Your task to perform on an android device: turn off smart reply in the gmail app Image 0: 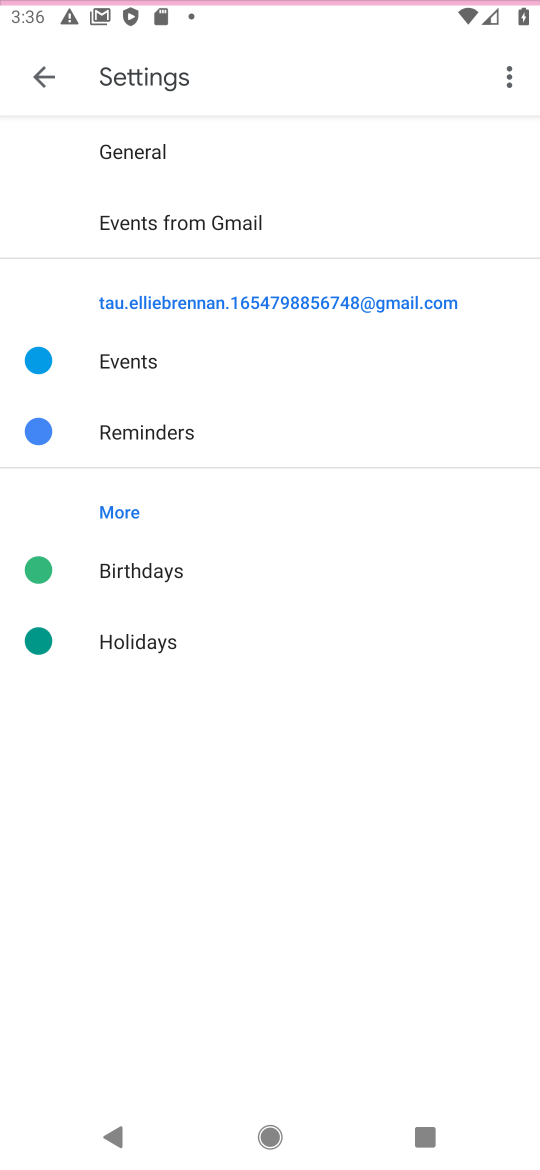
Step 0: click (382, 645)
Your task to perform on an android device: turn off smart reply in the gmail app Image 1: 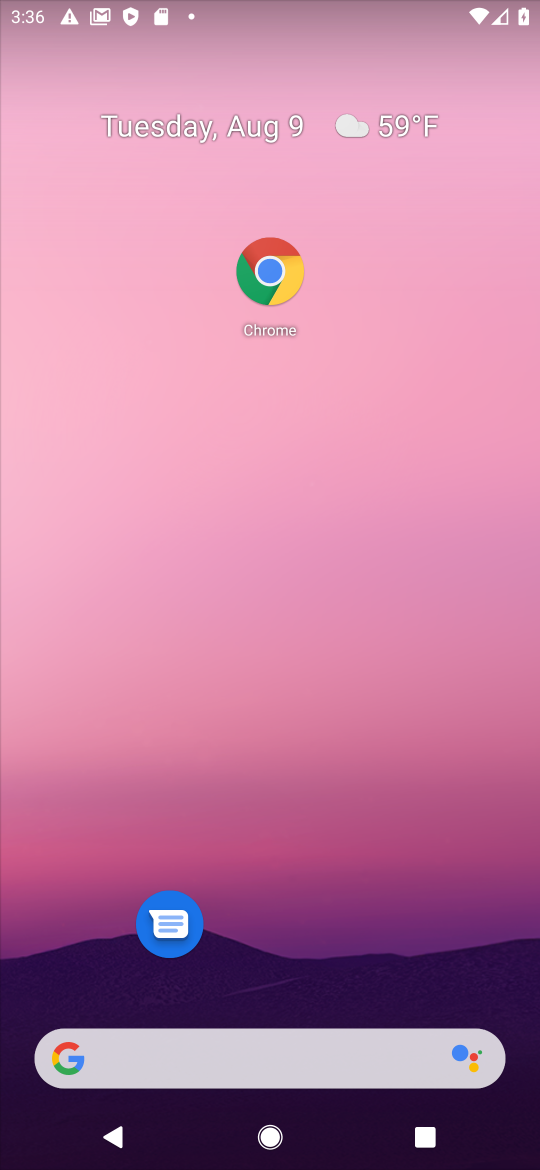
Step 1: drag from (352, 650) to (200, 658)
Your task to perform on an android device: turn off smart reply in the gmail app Image 2: 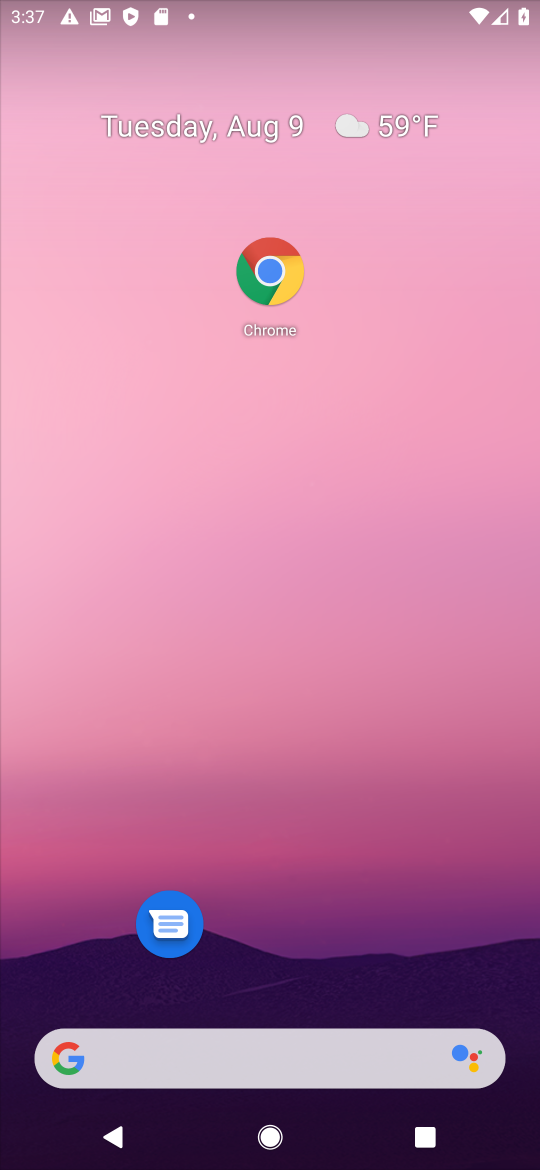
Step 2: drag from (257, 747) to (277, 166)
Your task to perform on an android device: turn off smart reply in the gmail app Image 3: 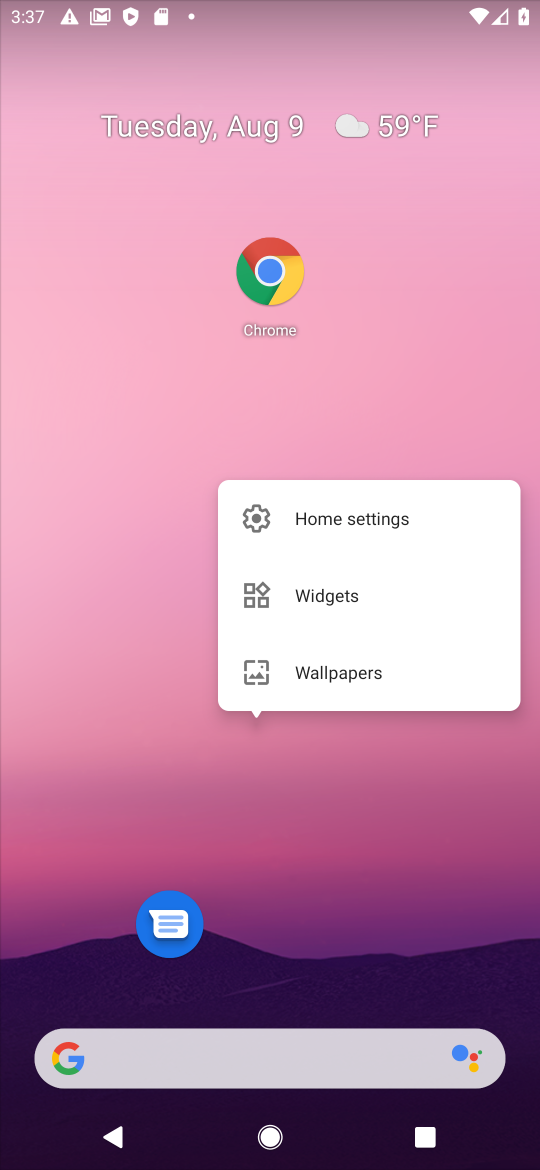
Step 3: click (320, 322)
Your task to perform on an android device: turn off smart reply in the gmail app Image 4: 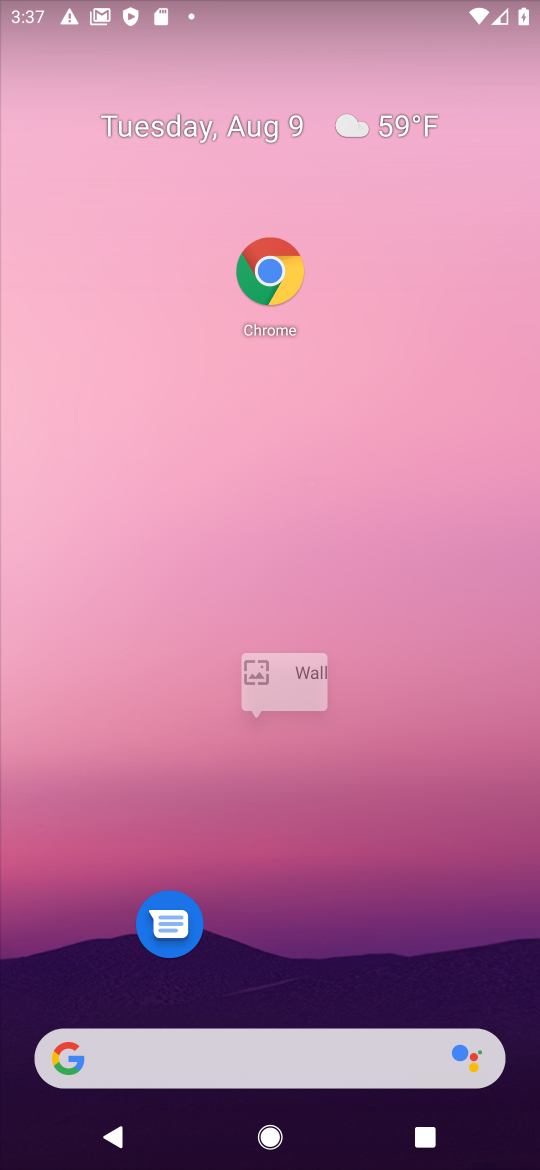
Step 4: drag from (232, 339) to (281, 247)
Your task to perform on an android device: turn off smart reply in the gmail app Image 5: 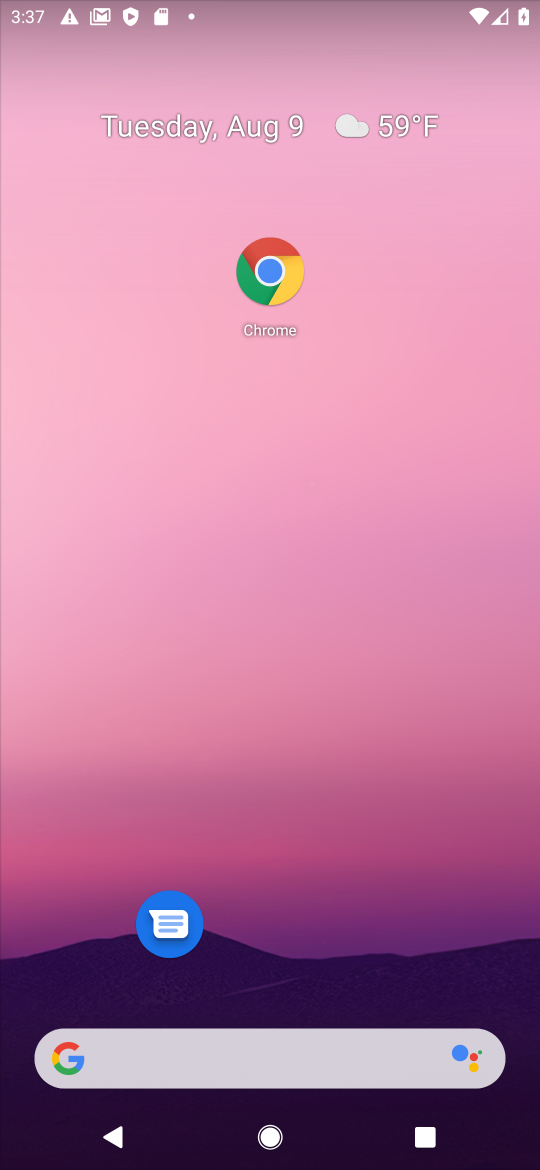
Step 5: drag from (267, 493) to (243, 99)
Your task to perform on an android device: turn off smart reply in the gmail app Image 6: 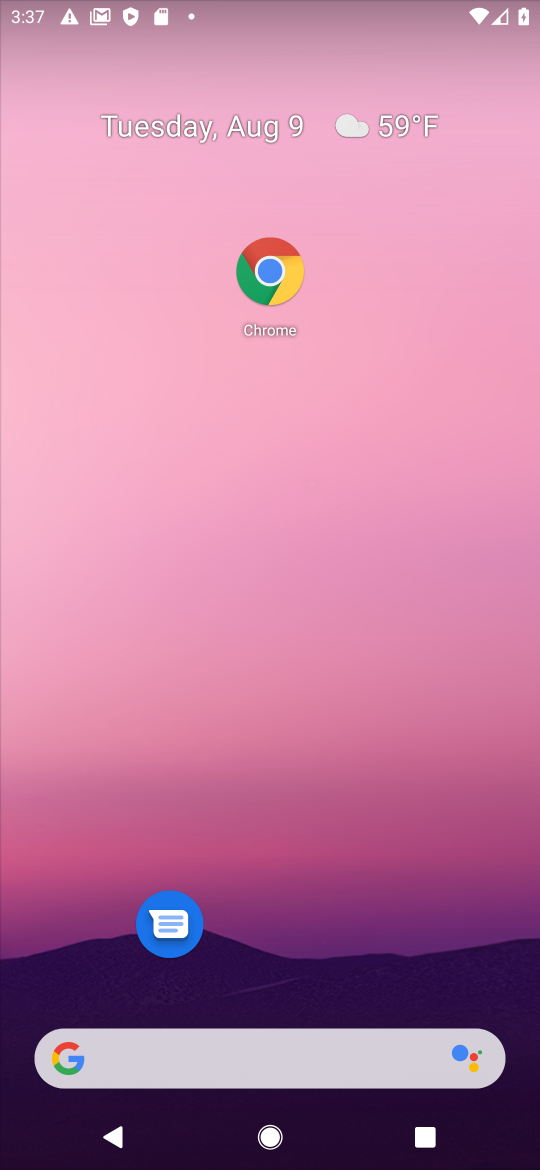
Step 6: drag from (239, 847) to (184, 122)
Your task to perform on an android device: turn off smart reply in the gmail app Image 7: 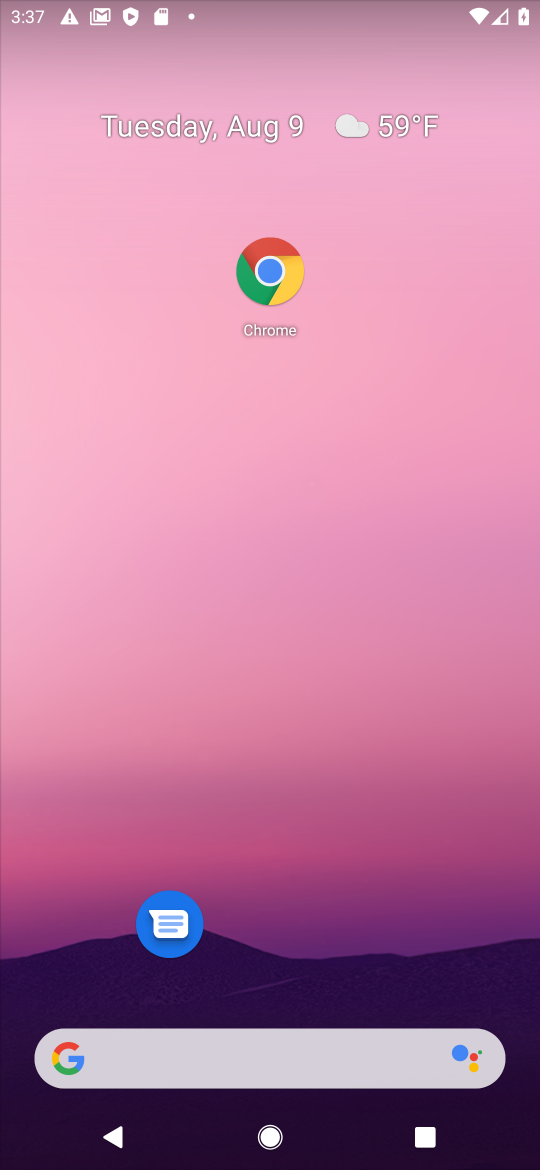
Step 7: drag from (294, 581) to (280, 95)
Your task to perform on an android device: turn off smart reply in the gmail app Image 8: 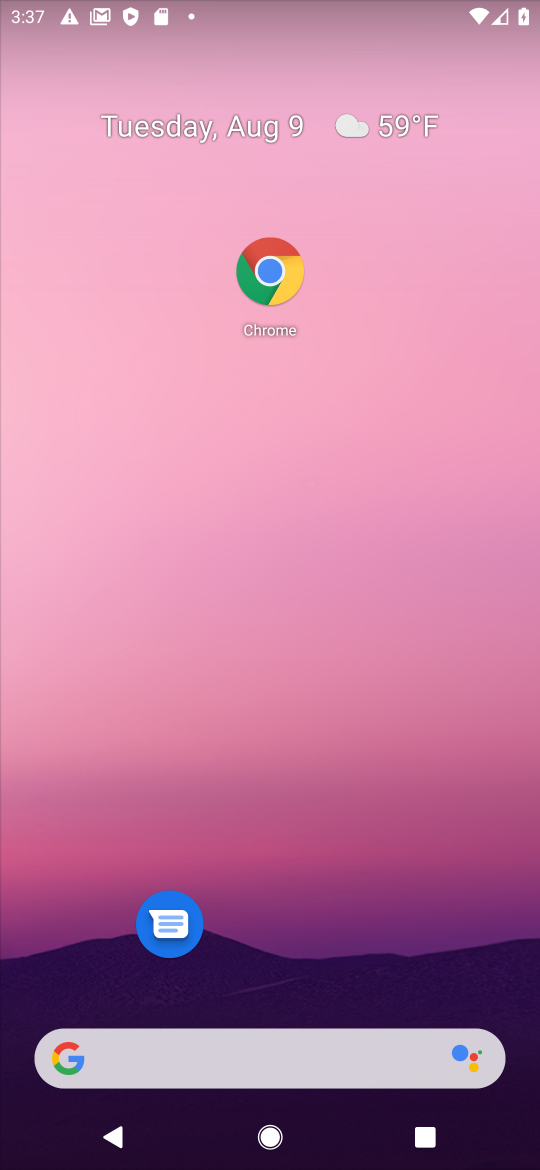
Step 8: drag from (318, 924) to (259, 114)
Your task to perform on an android device: turn off smart reply in the gmail app Image 9: 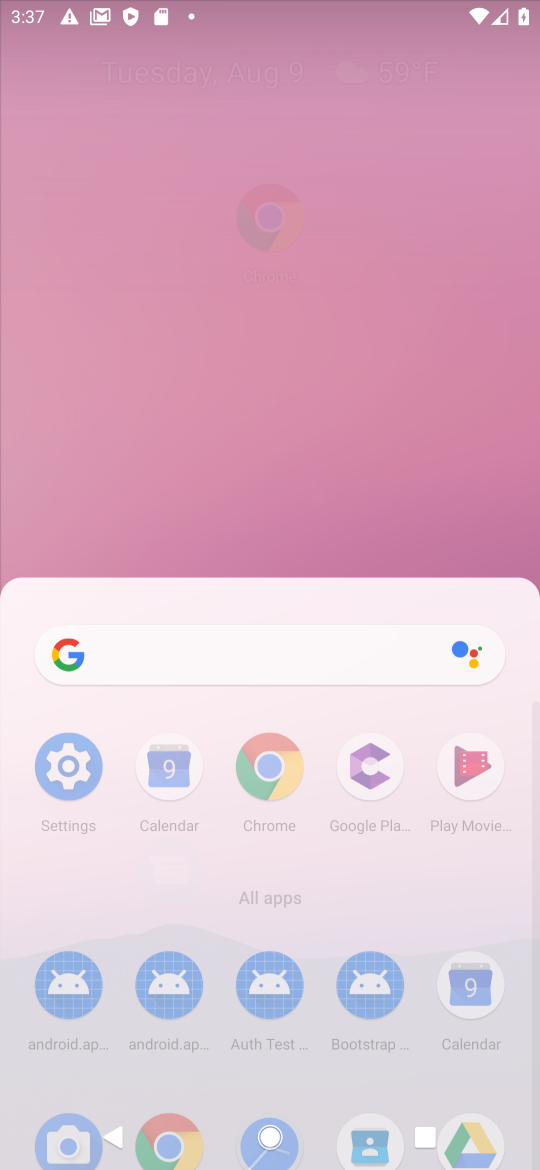
Step 9: drag from (278, 856) to (264, 255)
Your task to perform on an android device: turn off smart reply in the gmail app Image 10: 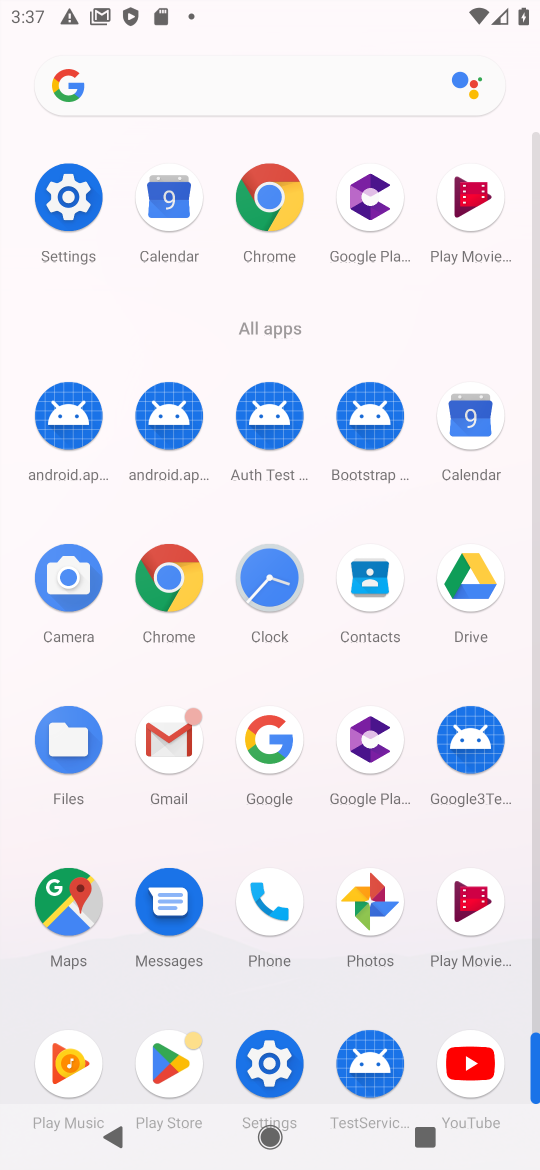
Step 10: click (269, 746)
Your task to perform on an android device: turn off smart reply in the gmail app Image 11: 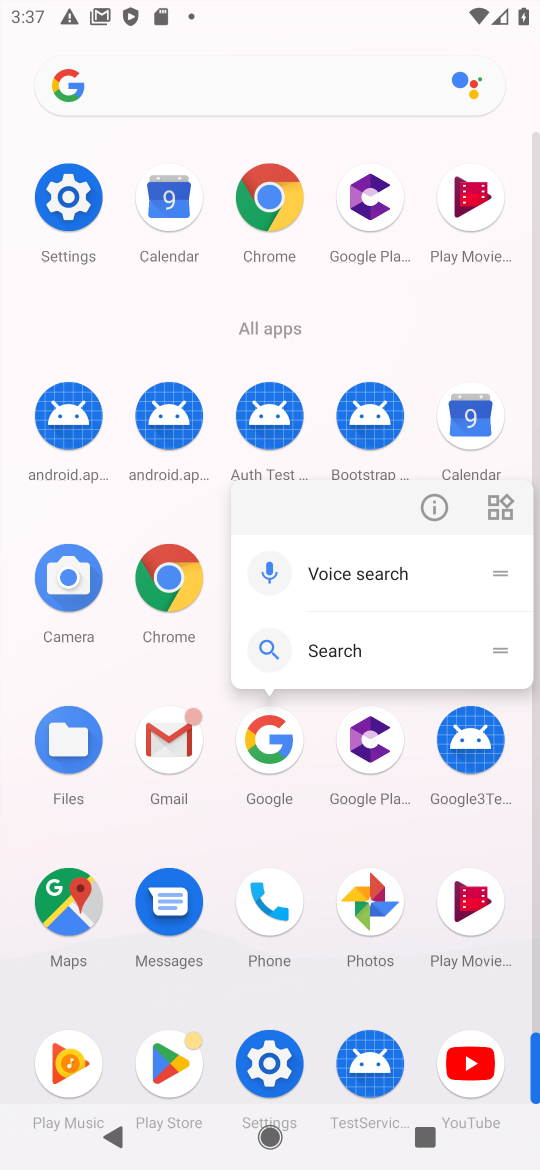
Step 11: click (306, 279)
Your task to perform on an android device: turn off smart reply in the gmail app Image 12: 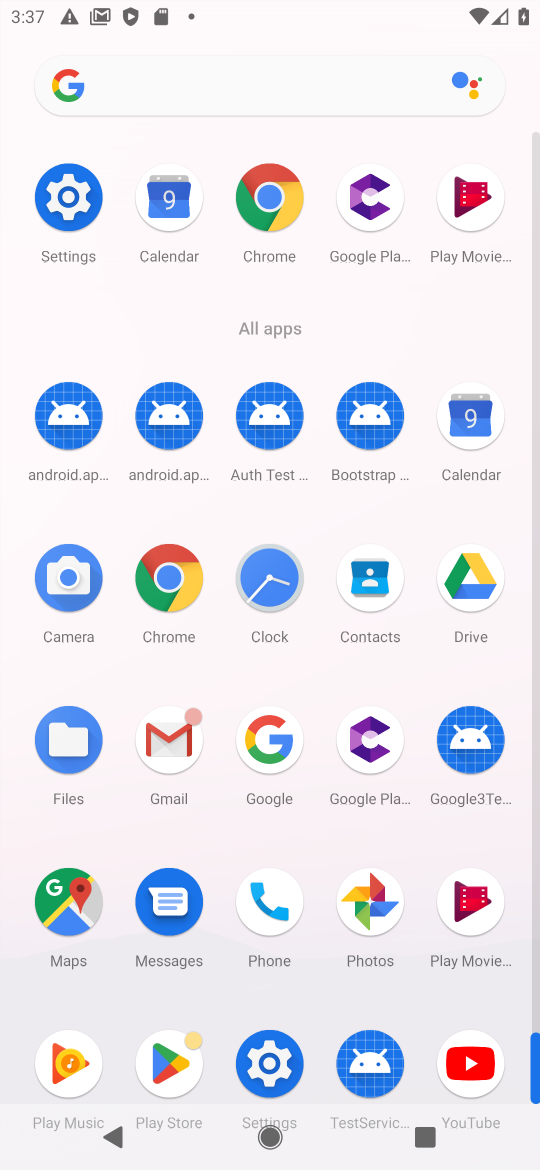
Step 12: click (321, 309)
Your task to perform on an android device: turn off smart reply in the gmail app Image 13: 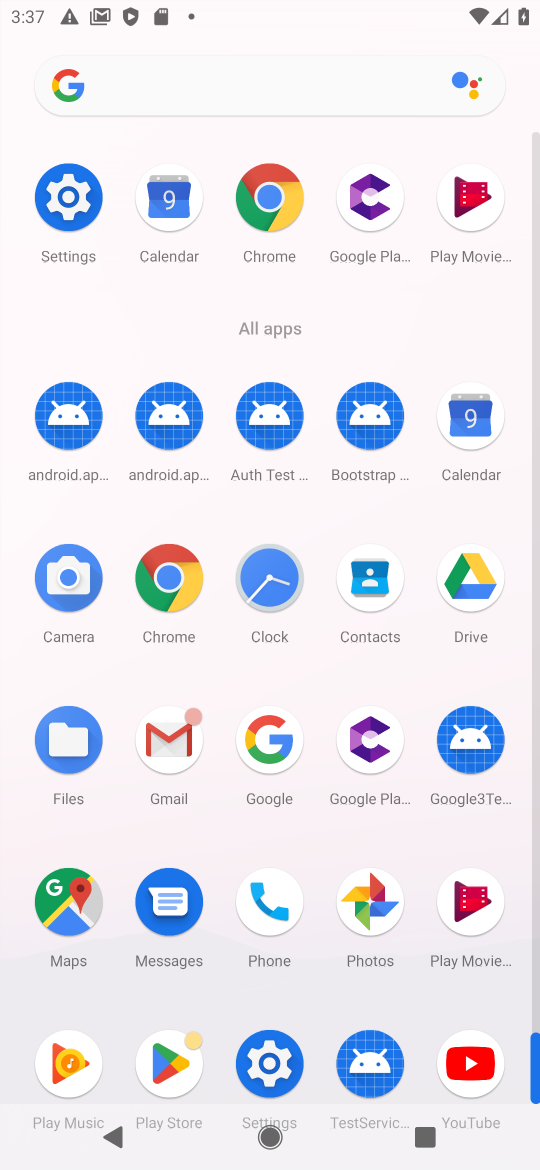
Step 13: click (344, 324)
Your task to perform on an android device: turn off smart reply in the gmail app Image 14: 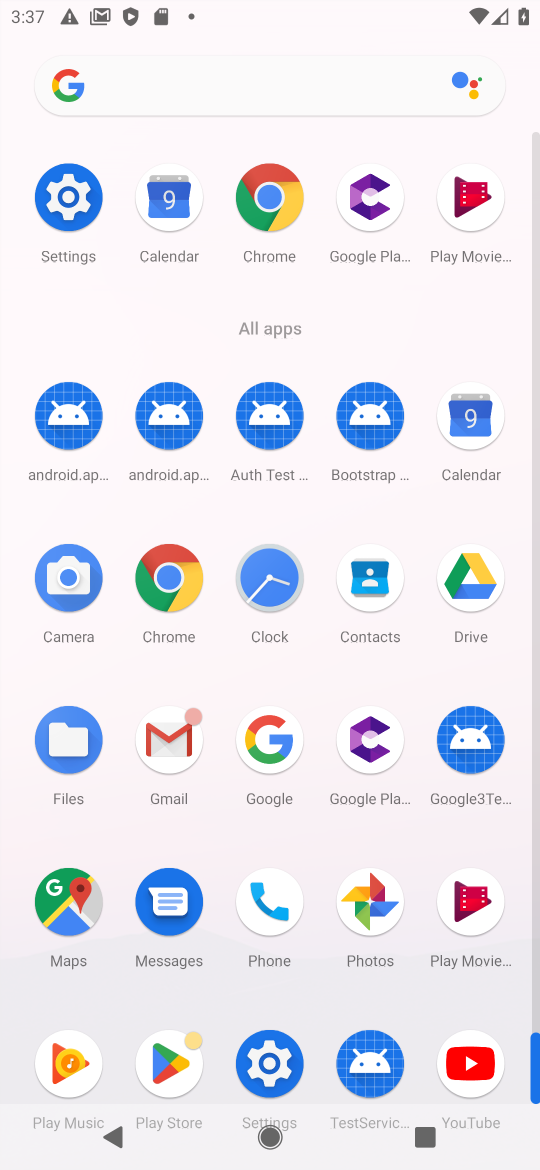
Step 14: click (164, 727)
Your task to perform on an android device: turn off smart reply in the gmail app Image 15: 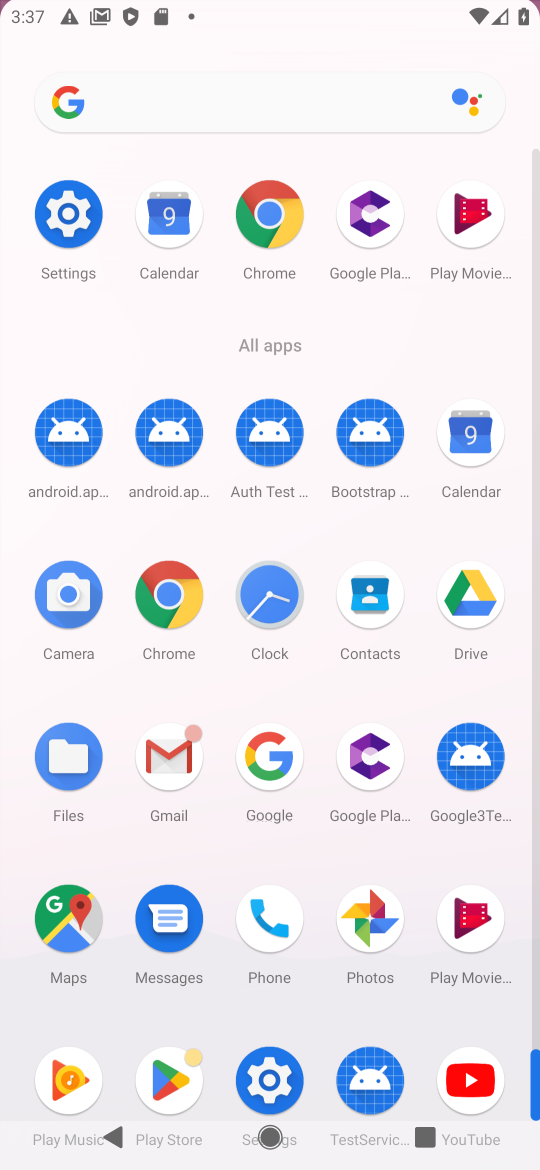
Step 15: click (178, 750)
Your task to perform on an android device: turn off smart reply in the gmail app Image 16: 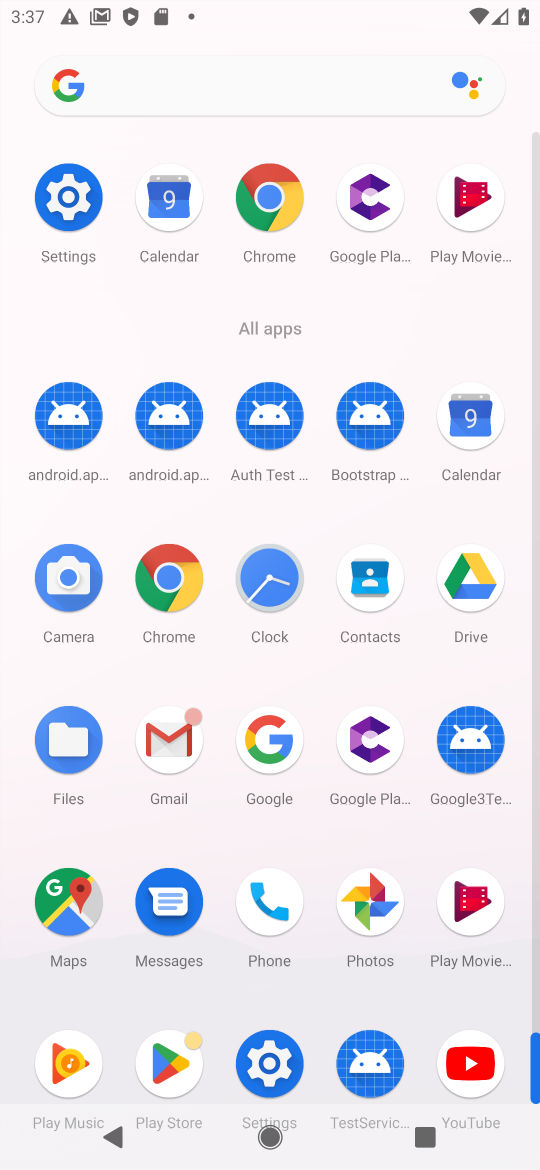
Step 16: click (178, 753)
Your task to perform on an android device: turn off smart reply in the gmail app Image 17: 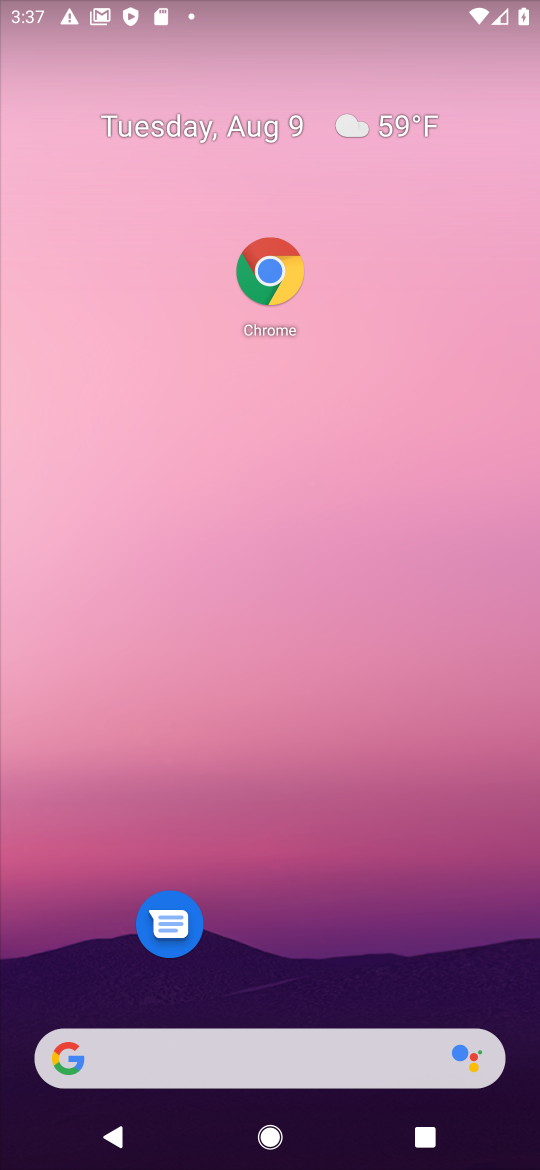
Step 17: drag from (205, 1014) to (275, 254)
Your task to perform on an android device: turn off smart reply in the gmail app Image 18: 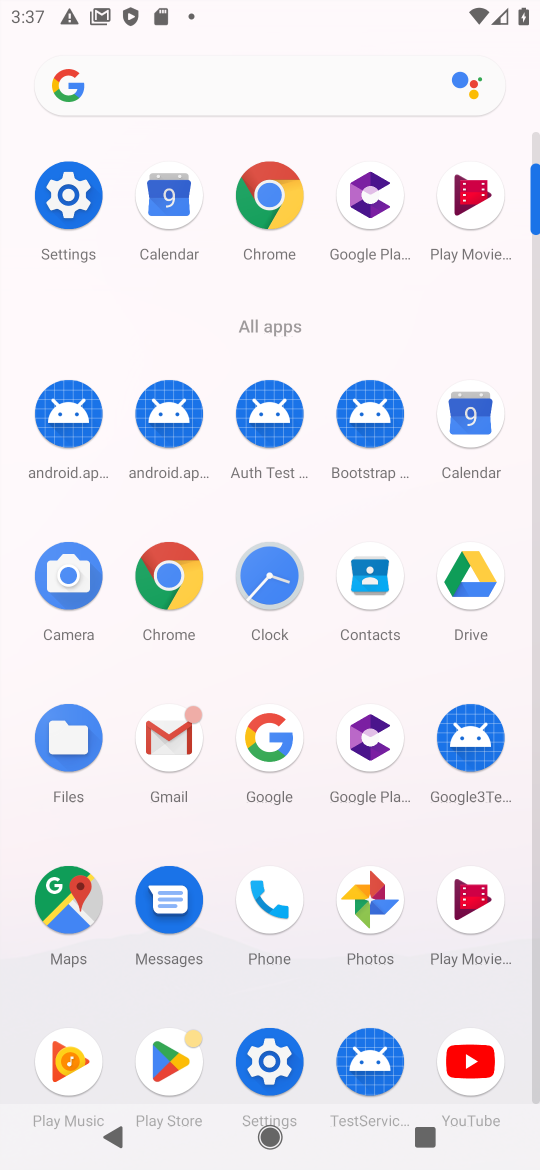
Step 18: click (170, 736)
Your task to perform on an android device: turn off smart reply in the gmail app Image 19: 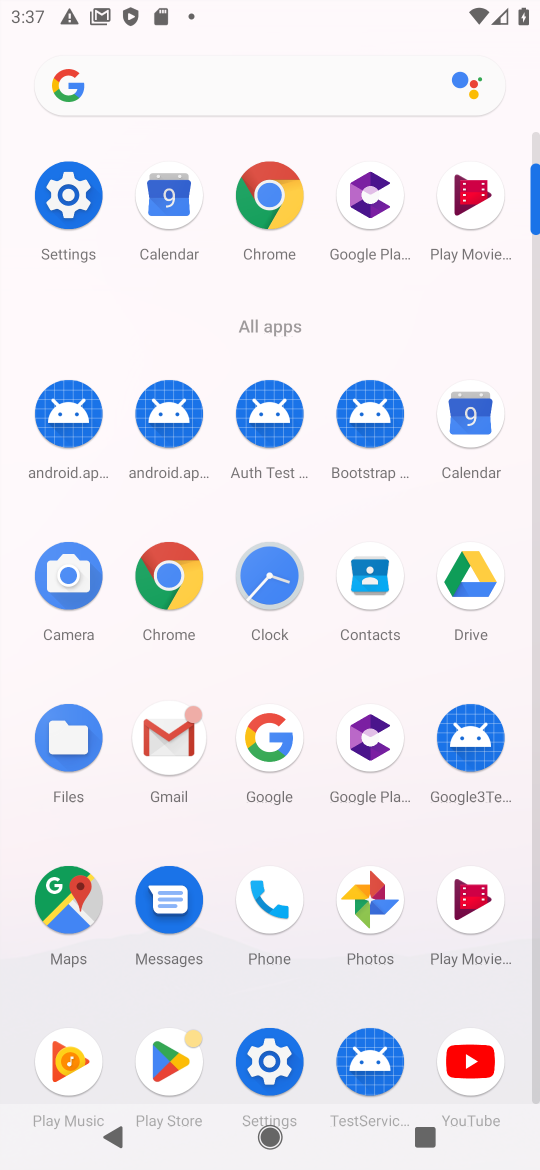
Step 19: click (170, 736)
Your task to perform on an android device: turn off smart reply in the gmail app Image 20: 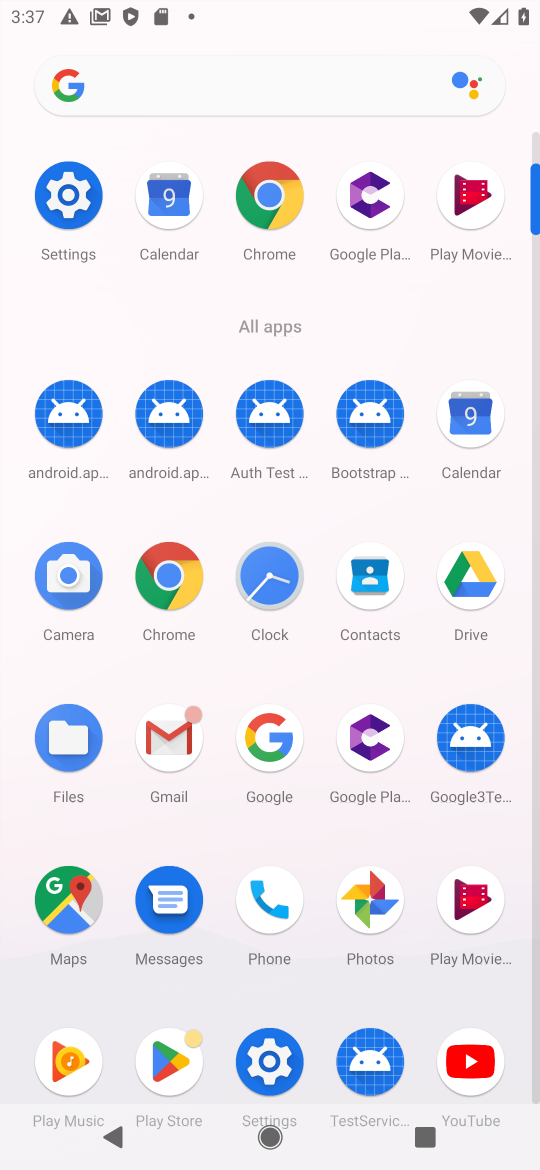
Step 20: click (175, 759)
Your task to perform on an android device: turn off smart reply in the gmail app Image 21: 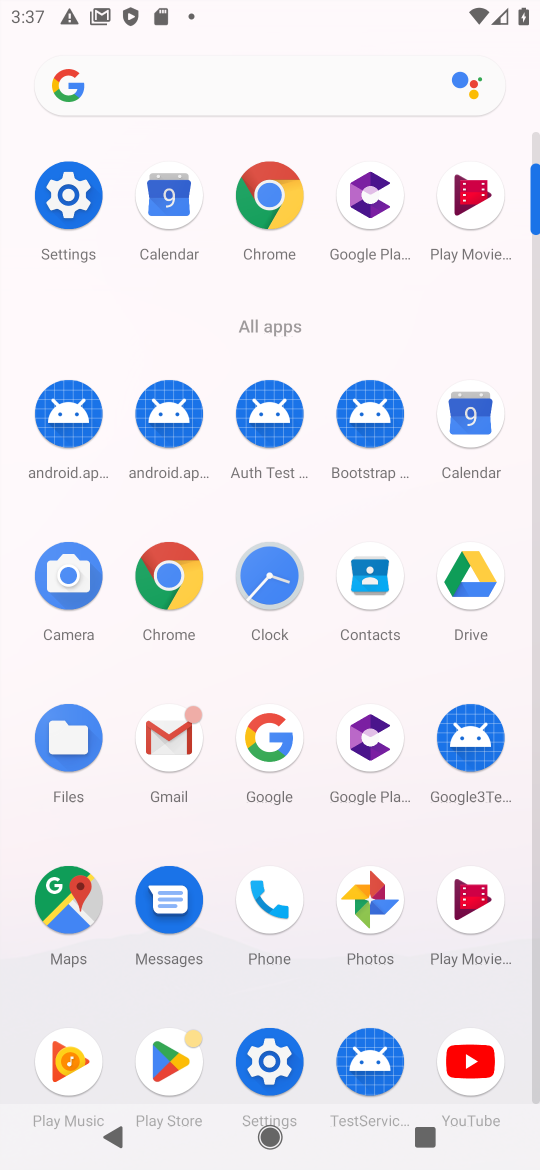
Step 21: click (174, 750)
Your task to perform on an android device: turn off smart reply in the gmail app Image 22: 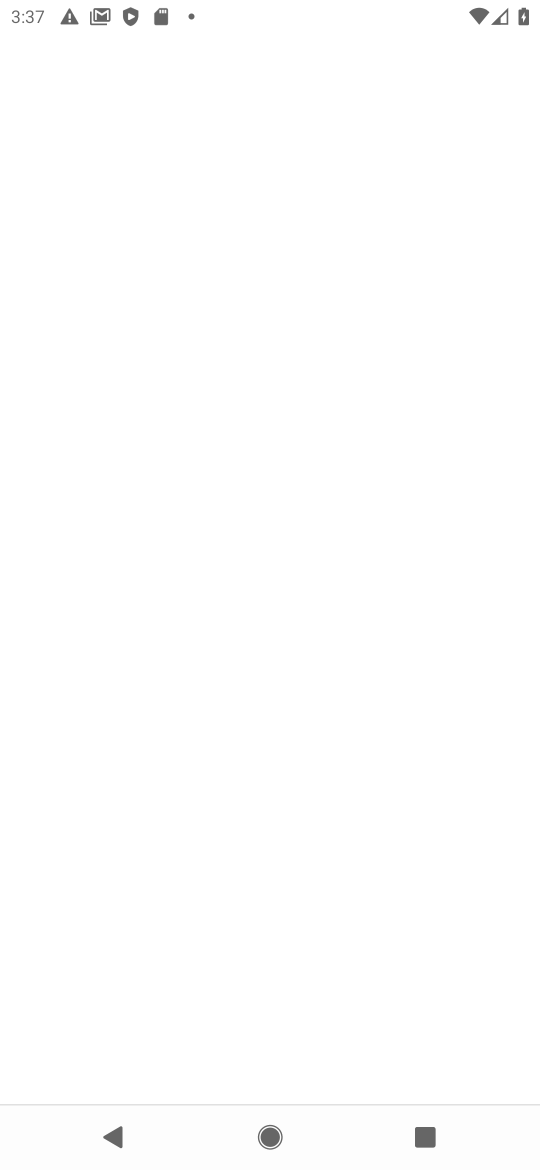
Step 22: click (171, 760)
Your task to perform on an android device: turn off smart reply in the gmail app Image 23: 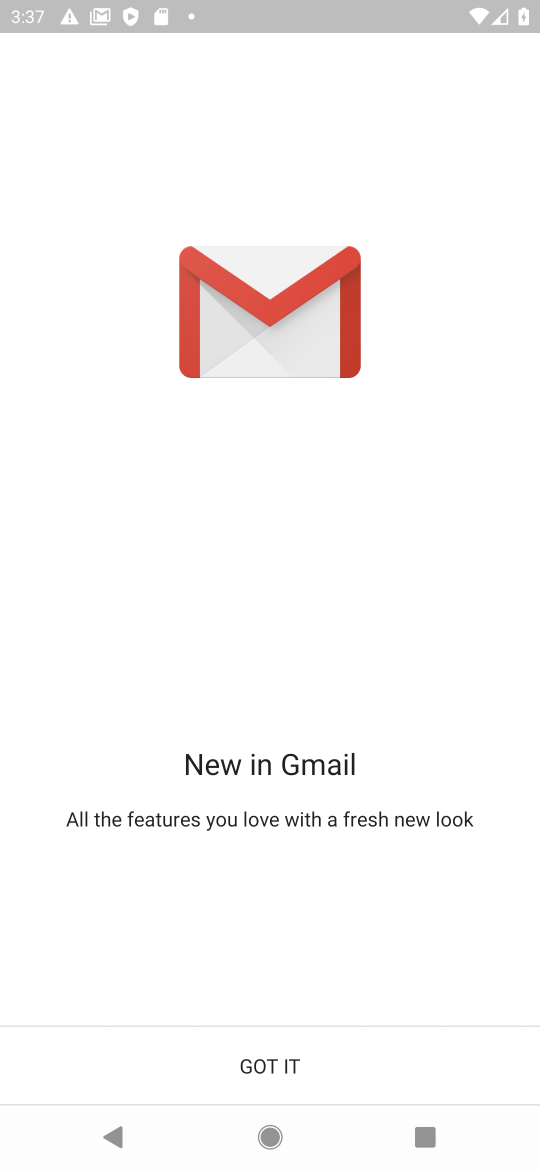
Step 23: click (277, 1063)
Your task to perform on an android device: turn off smart reply in the gmail app Image 24: 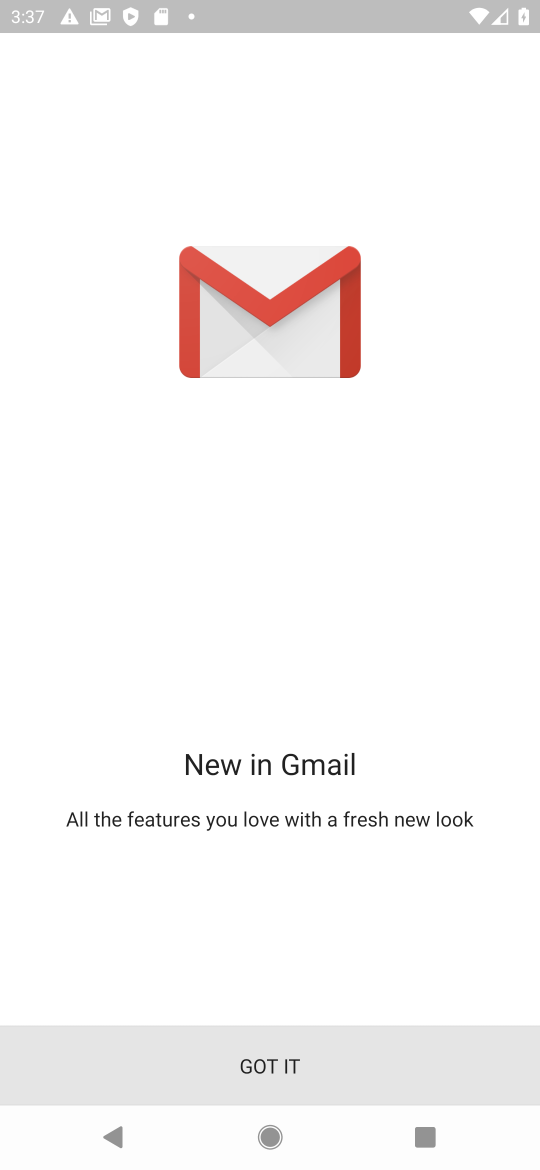
Step 24: click (277, 1063)
Your task to perform on an android device: turn off smart reply in the gmail app Image 25: 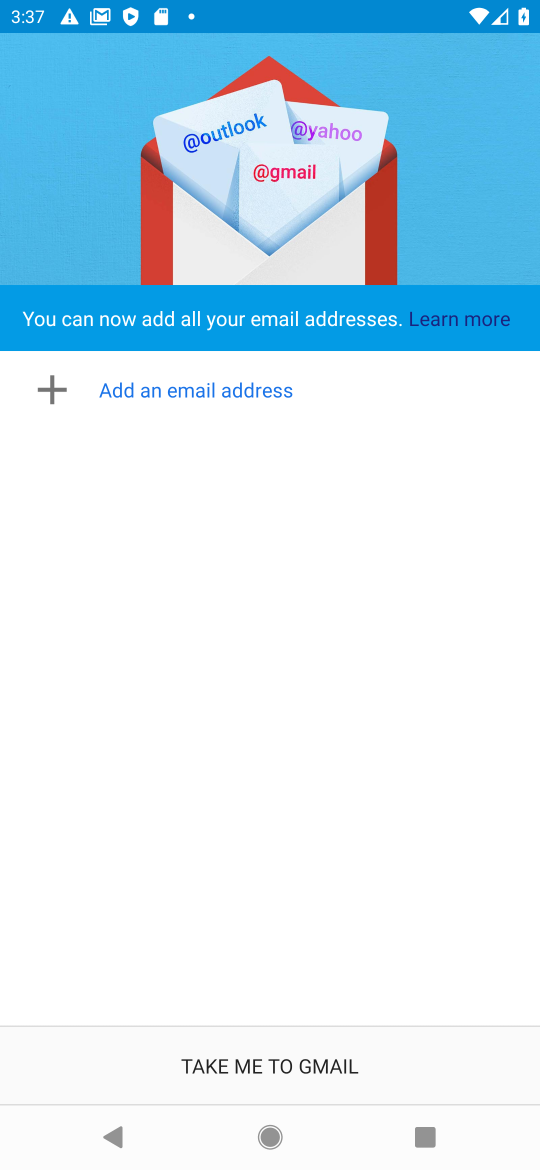
Step 25: click (280, 1063)
Your task to perform on an android device: turn off smart reply in the gmail app Image 26: 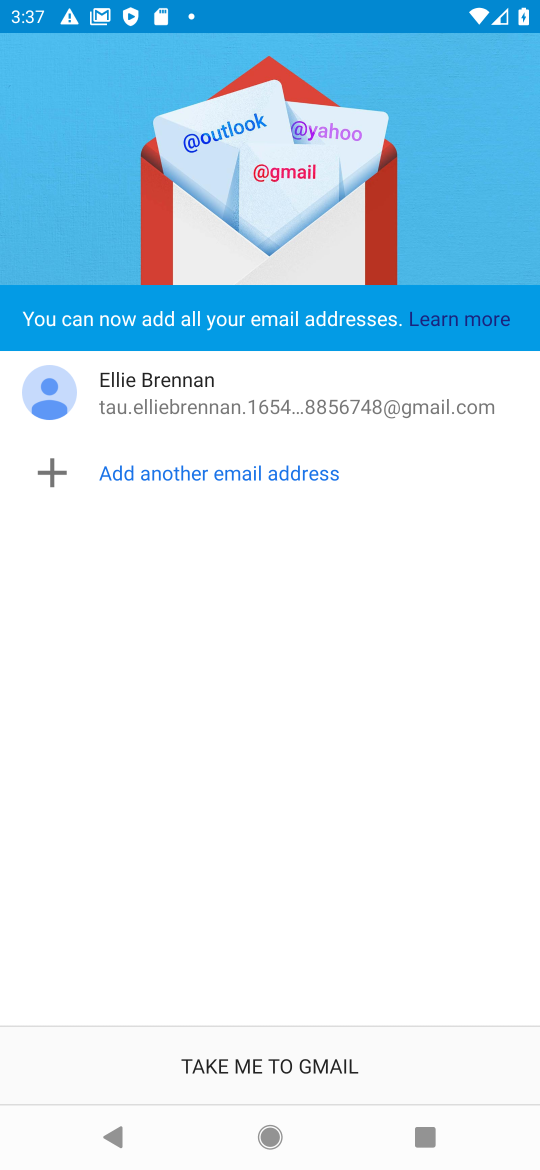
Step 26: click (325, 1080)
Your task to perform on an android device: turn off smart reply in the gmail app Image 27: 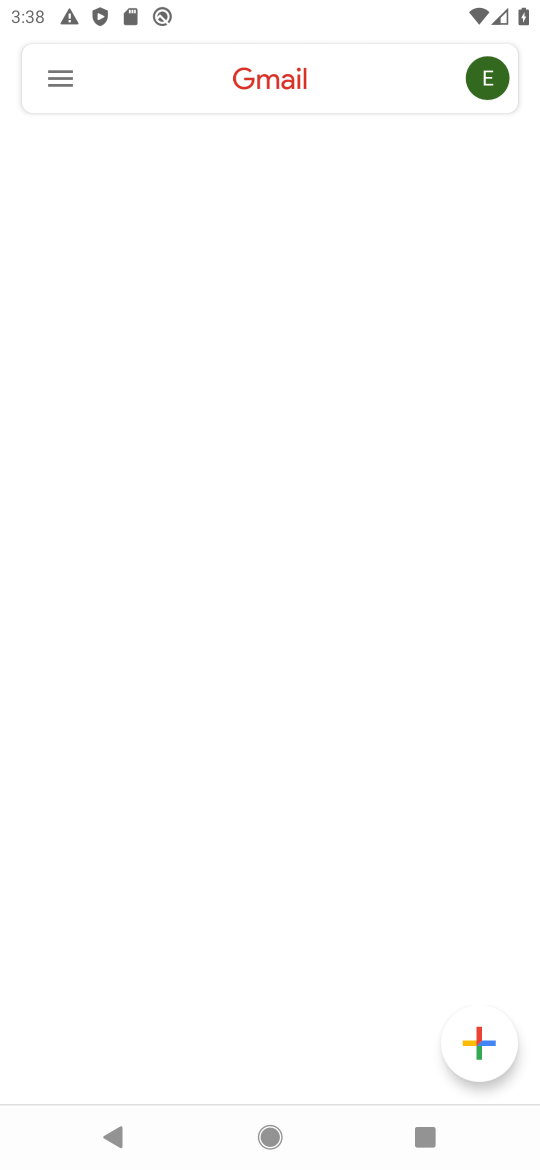
Step 27: click (323, 1079)
Your task to perform on an android device: turn off smart reply in the gmail app Image 28: 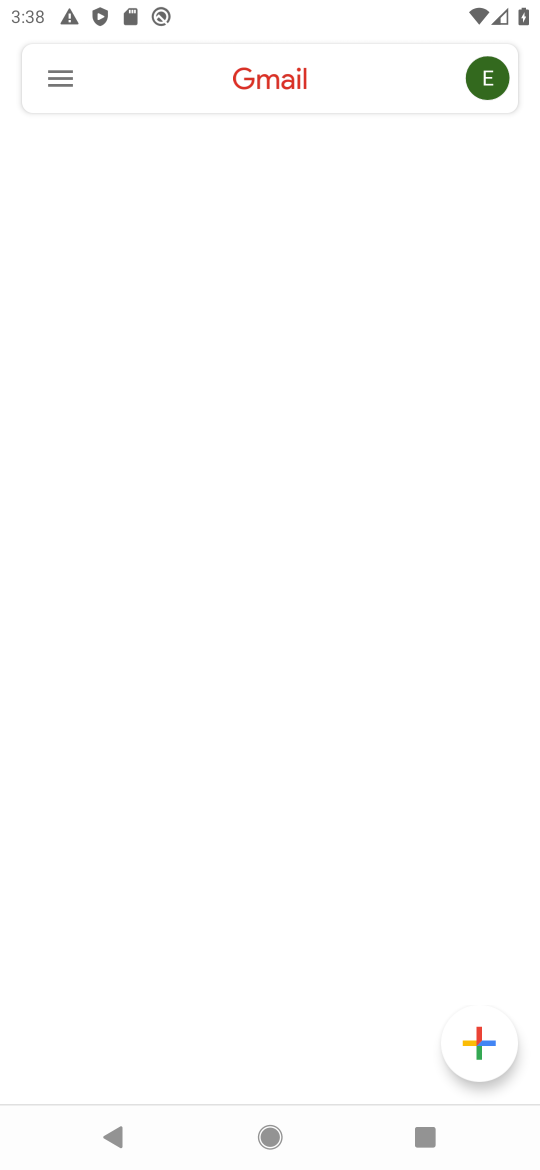
Step 28: click (323, 1079)
Your task to perform on an android device: turn off smart reply in the gmail app Image 29: 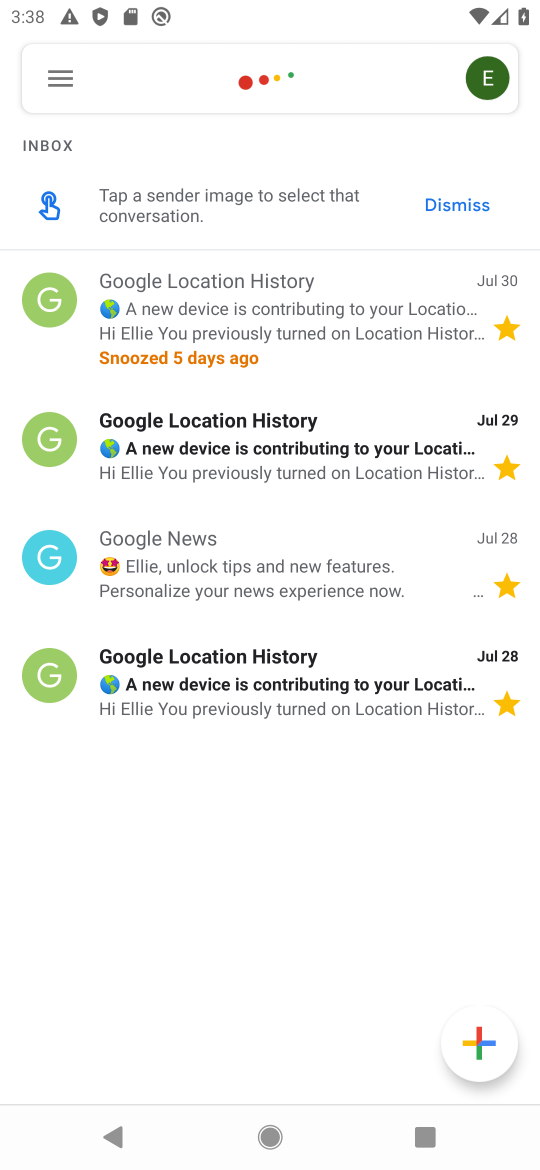
Step 29: drag from (54, 72) to (175, 743)
Your task to perform on an android device: turn off smart reply in the gmail app Image 30: 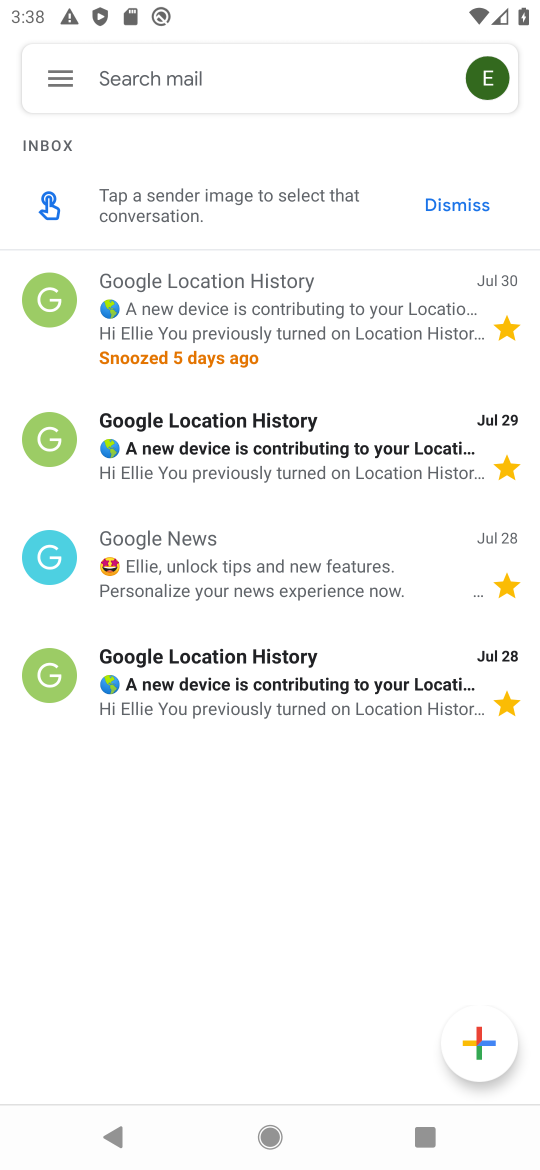
Step 30: click (49, 82)
Your task to perform on an android device: turn off smart reply in the gmail app Image 31: 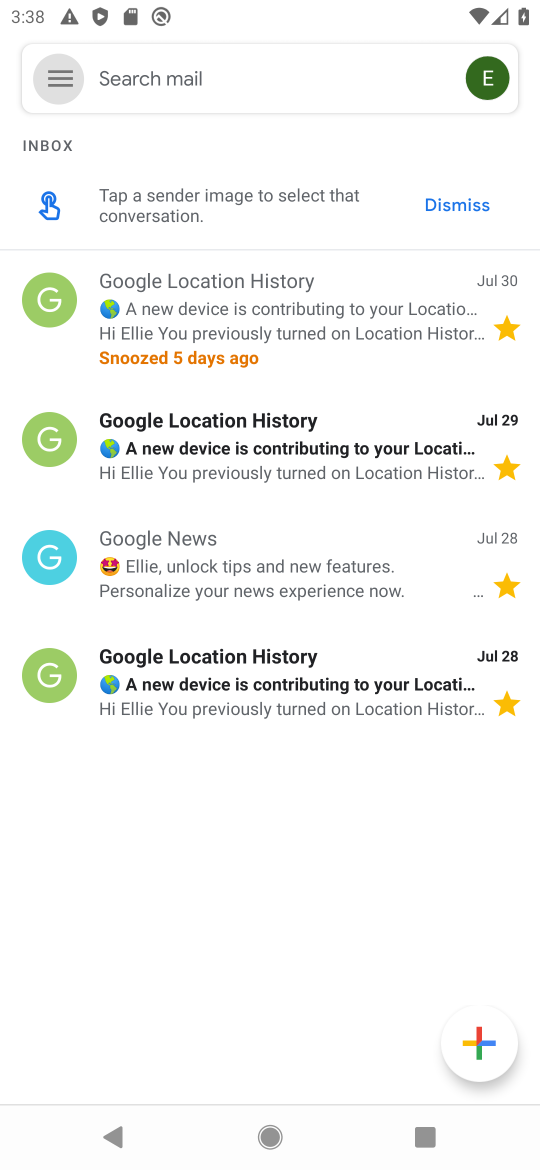
Step 31: click (51, 86)
Your task to perform on an android device: turn off smart reply in the gmail app Image 32: 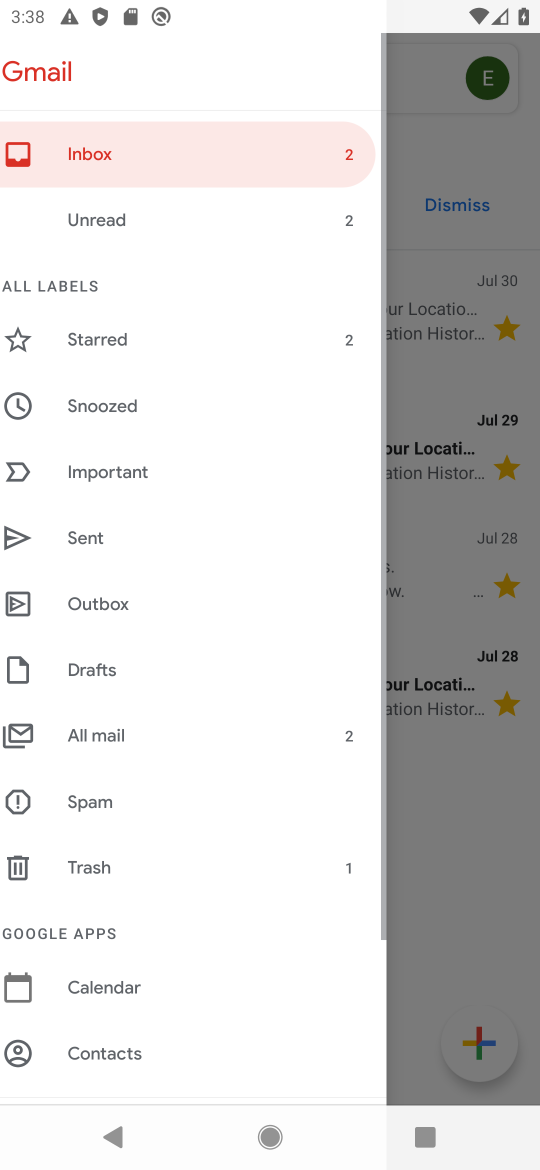
Step 32: click (51, 86)
Your task to perform on an android device: turn off smart reply in the gmail app Image 33: 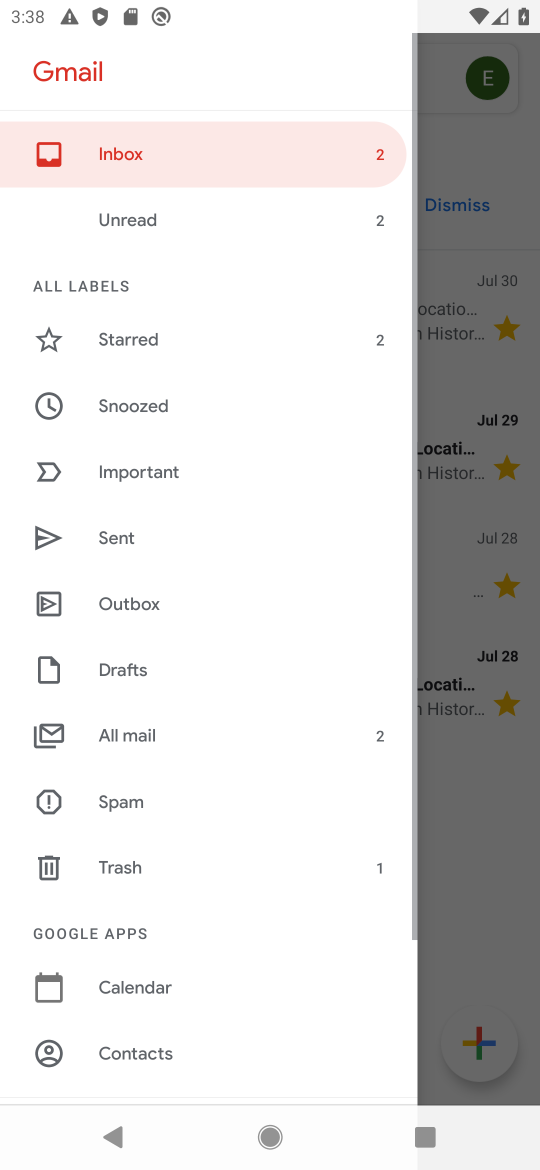
Step 33: click (51, 86)
Your task to perform on an android device: turn off smart reply in the gmail app Image 34: 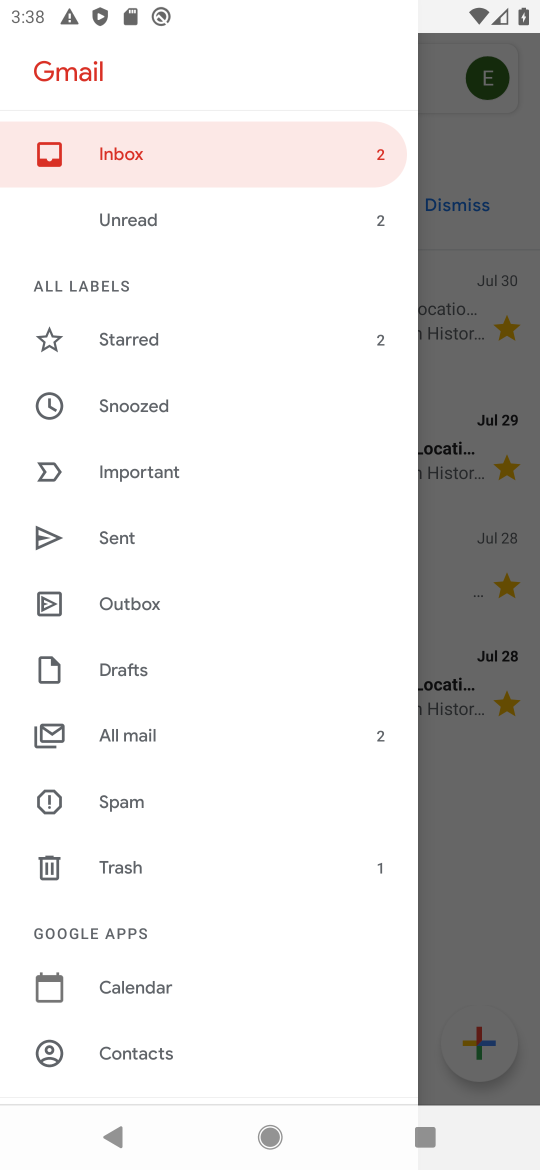
Step 34: drag from (125, 861) to (136, 454)
Your task to perform on an android device: turn off smart reply in the gmail app Image 35: 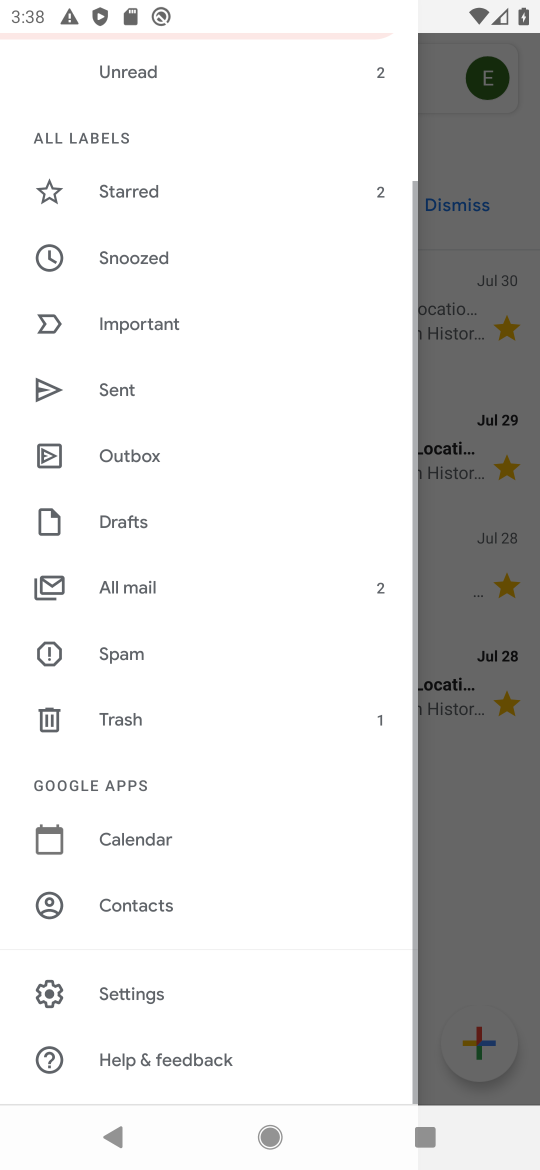
Step 35: click (140, 488)
Your task to perform on an android device: turn off smart reply in the gmail app Image 36: 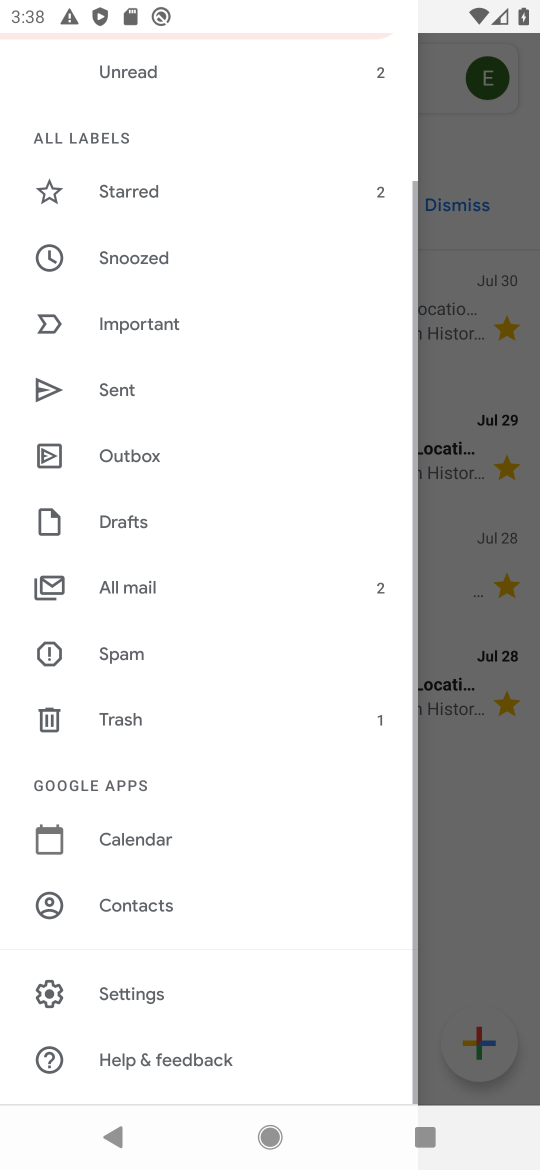
Step 36: drag from (196, 965) to (198, 402)
Your task to perform on an android device: turn off smart reply in the gmail app Image 37: 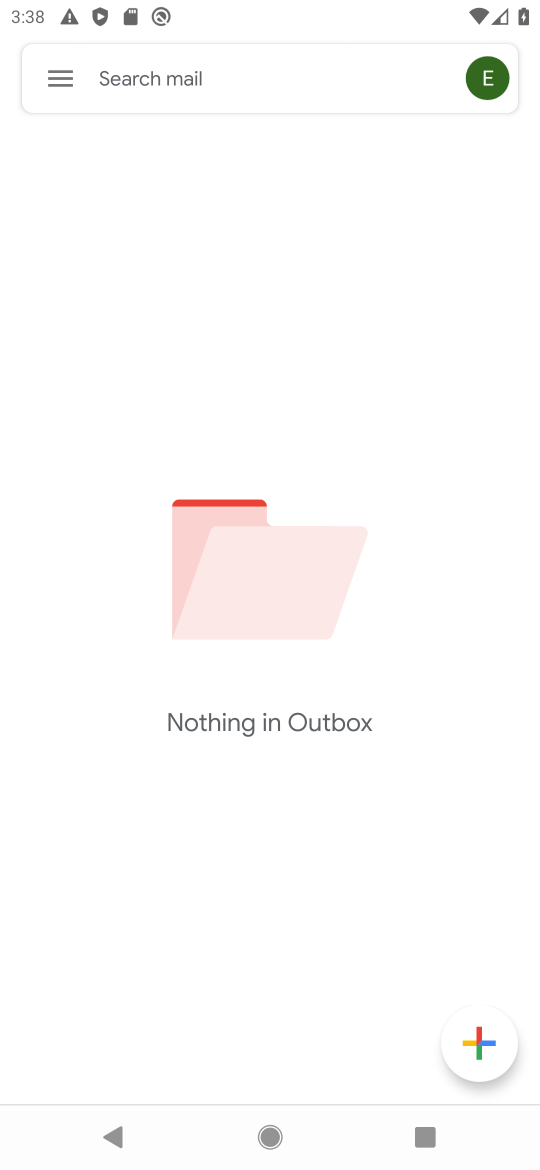
Step 37: click (68, 62)
Your task to perform on an android device: turn off smart reply in the gmail app Image 38: 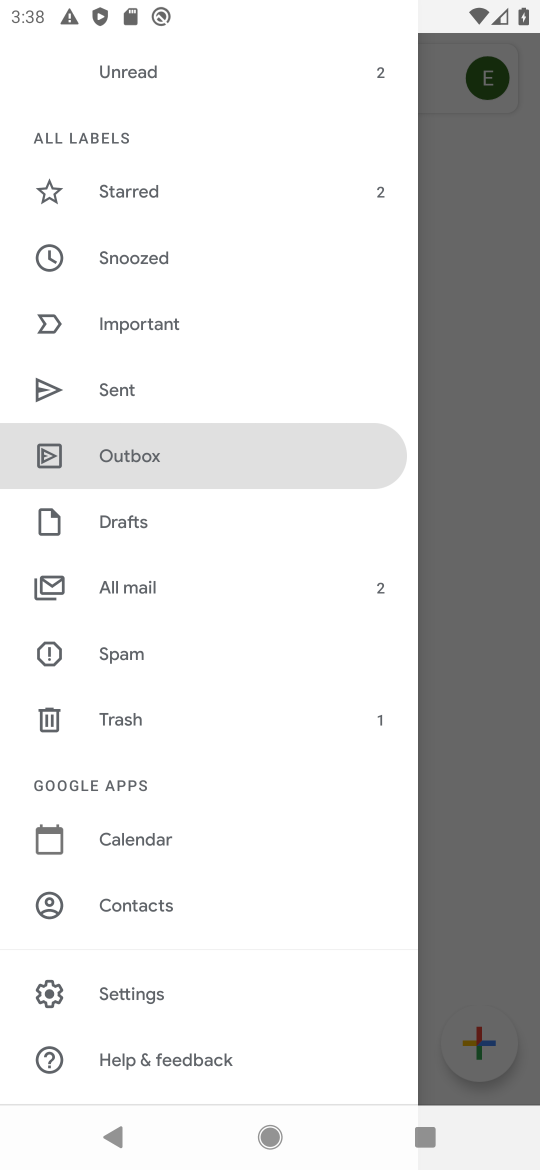
Step 38: click (121, 1007)
Your task to perform on an android device: turn off smart reply in the gmail app Image 39: 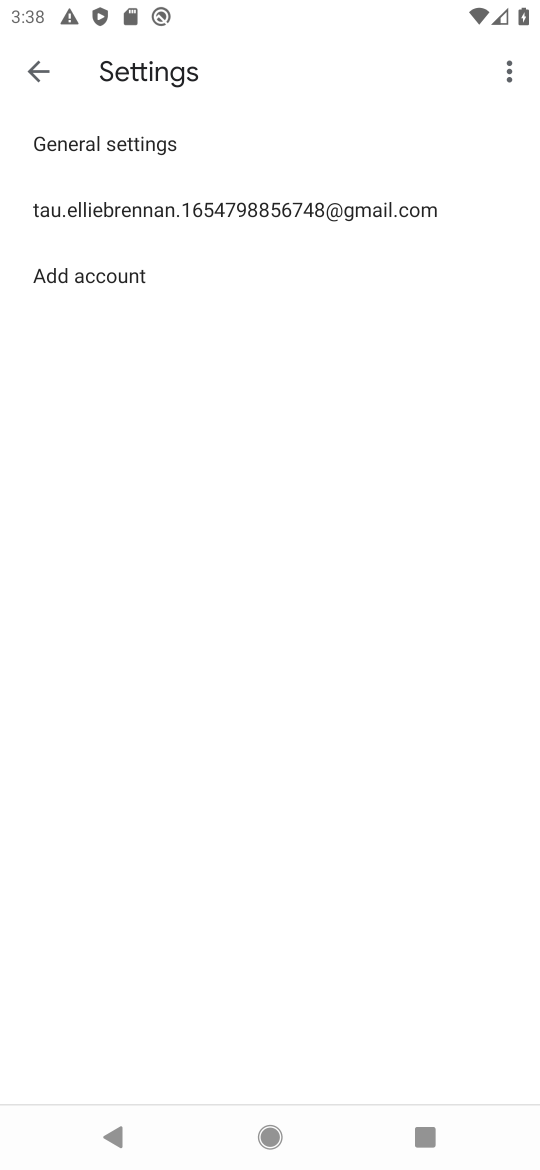
Step 39: click (151, 193)
Your task to perform on an android device: turn off smart reply in the gmail app Image 40: 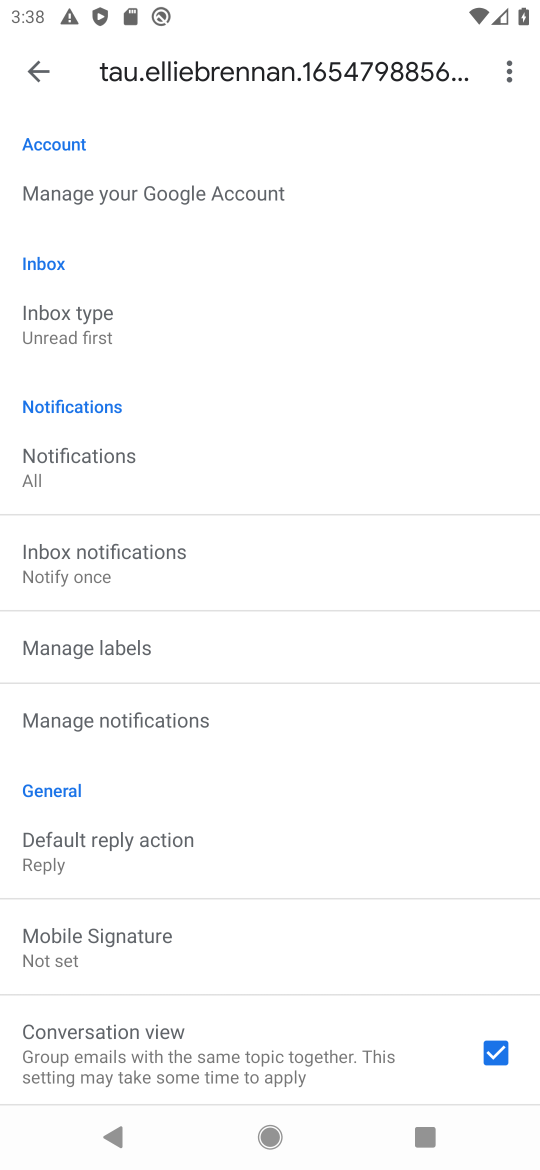
Step 40: drag from (178, 810) to (215, 676)
Your task to perform on an android device: turn off smart reply in the gmail app Image 41: 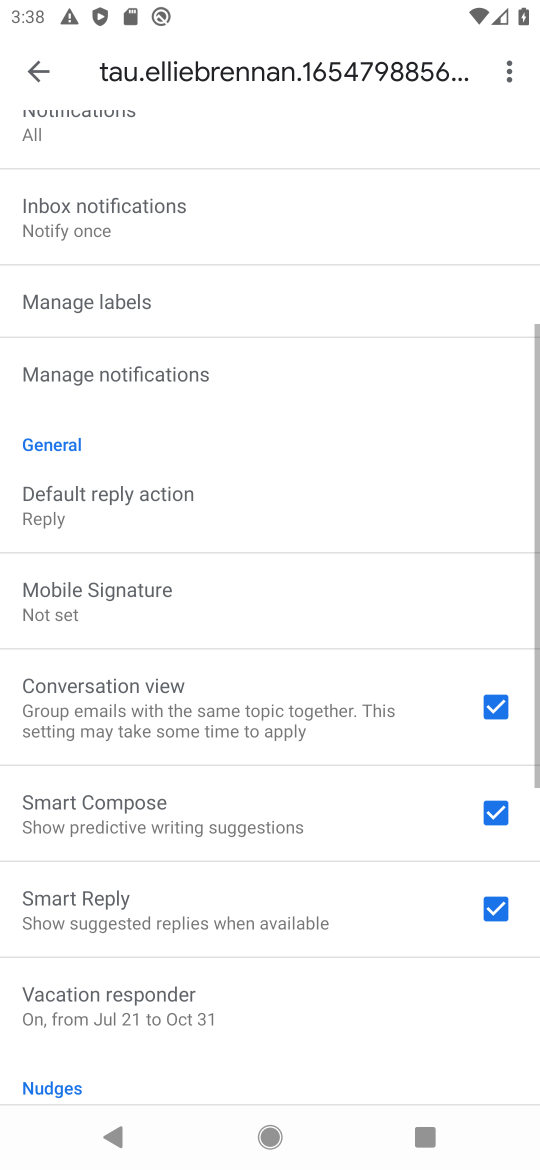
Step 41: drag from (261, 872) to (295, 559)
Your task to perform on an android device: turn off smart reply in the gmail app Image 42: 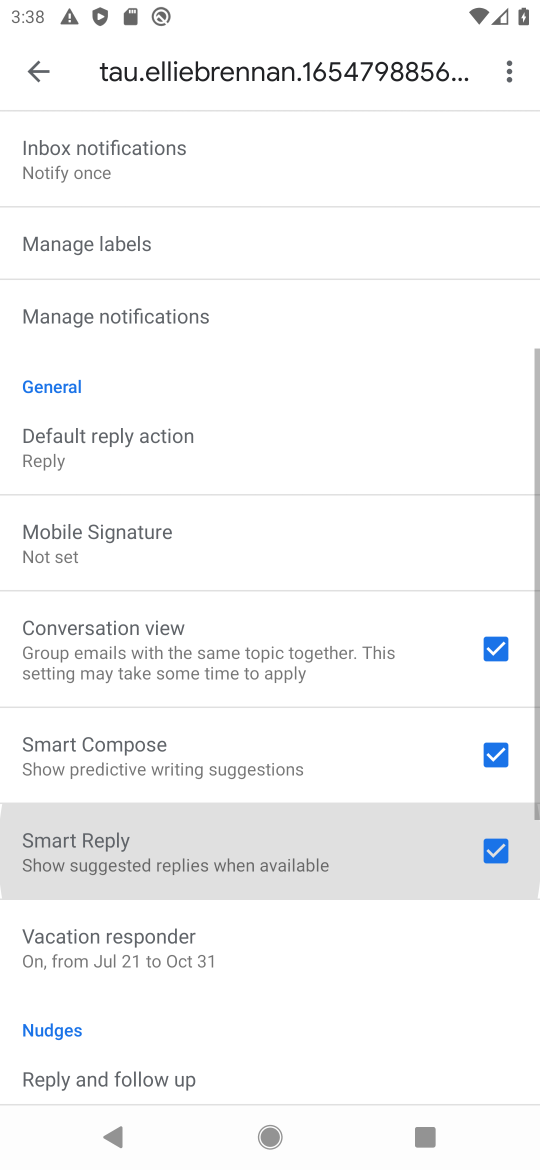
Step 42: drag from (312, 921) to (341, 603)
Your task to perform on an android device: turn off smart reply in the gmail app Image 43: 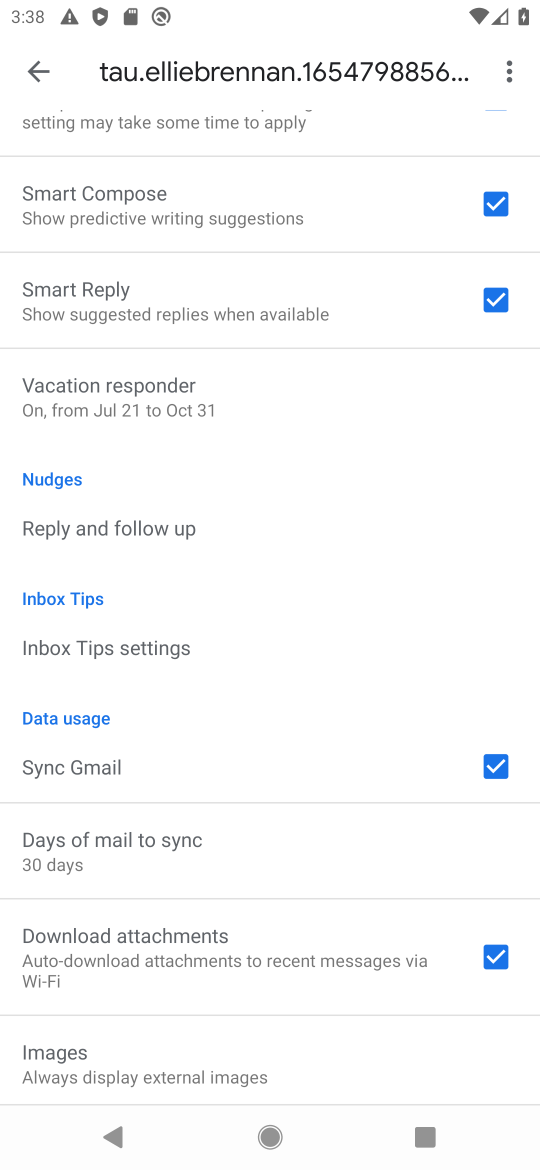
Step 43: click (490, 987)
Your task to perform on an android device: turn off smart reply in the gmail app Image 44: 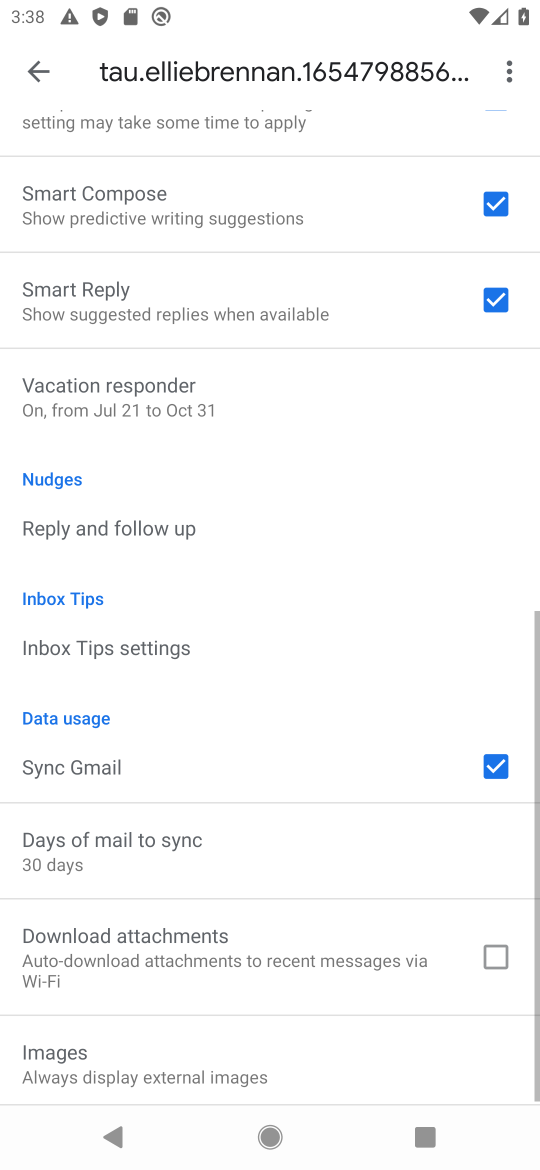
Step 44: task complete